Your task to perform on an android device: turn off translation in the chrome app Image 0: 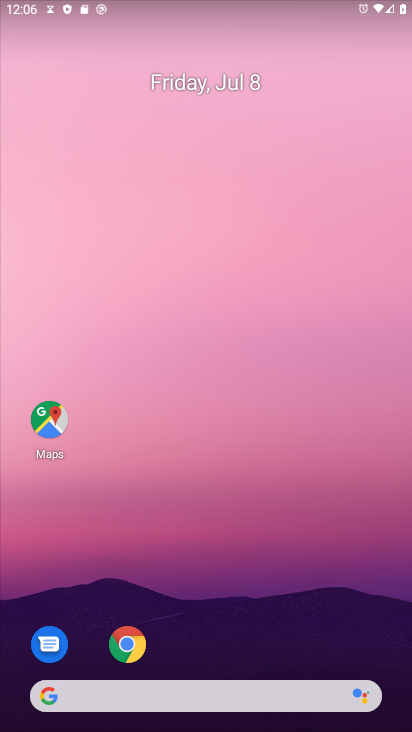
Step 0: drag from (200, 486) to (245, 177)
Your task to perform on an android device: turn off translation in the chrome app Image 1: 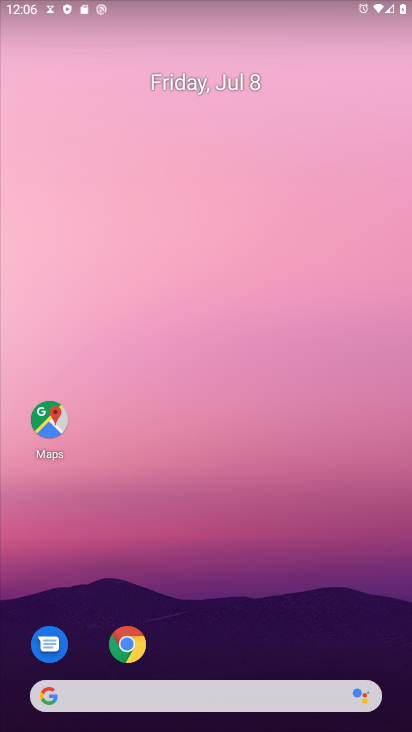
Step 1: click (127, 638)
Your task to perform on an android device: turn off translation in the chrome app Image 2: 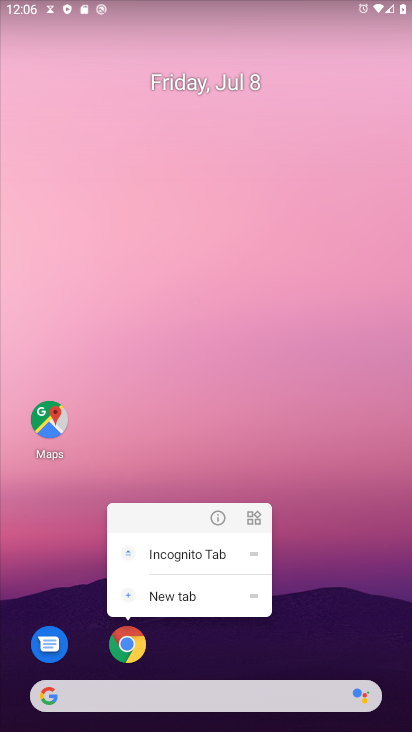
Step 2: click (130, 652)
Your task to perform on an android device: turn off translation in the chrome app Image 3: 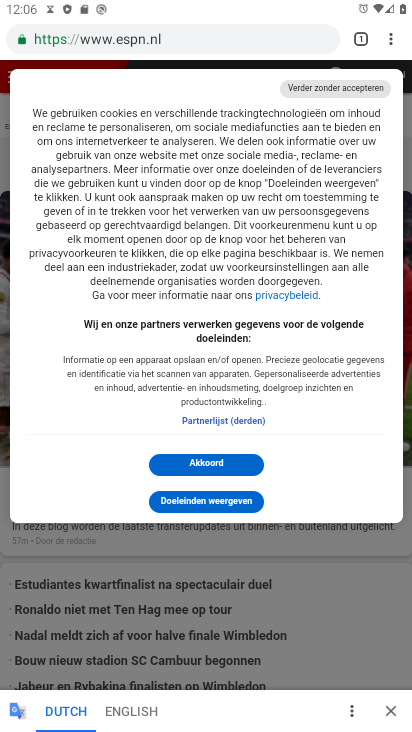
Step 3: click (390, 37)
Your task to perform on an android device: turn off translation in the chrome app Image 4: 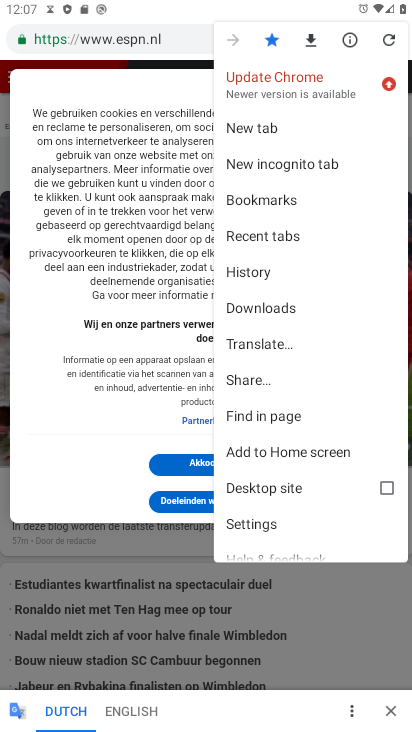
Step 4: click (252, 525)
Your task to perform on an android device: turn off translation in the chrome app Image 5: 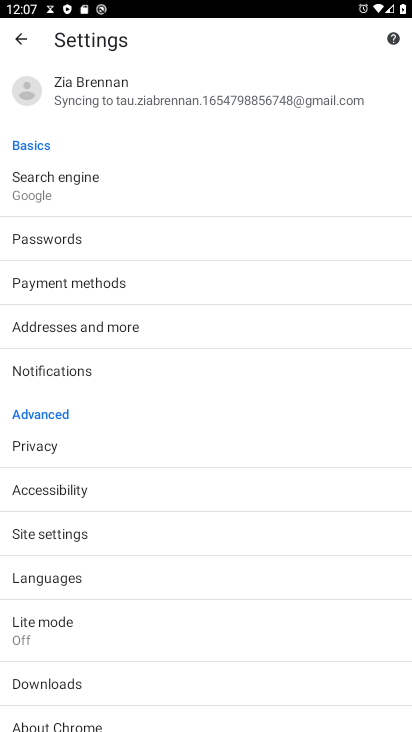
Step 5: click (77, 582)
Your task to perform on an android device: turn off translation in the chrome app Image 6: 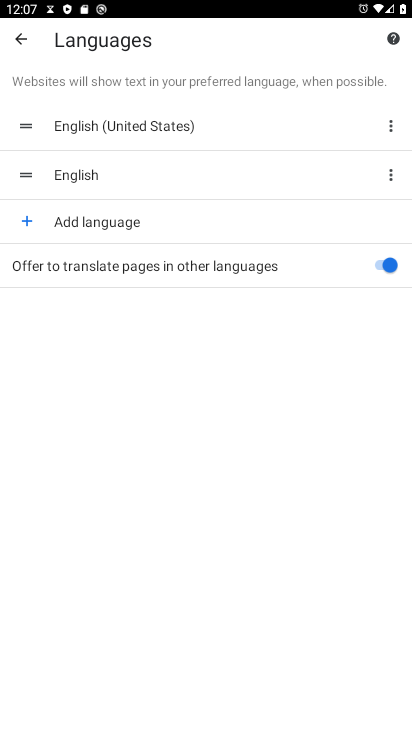
Step 6: click (356, 268)
Your task to perform on an android device: turn off translation in the chrome app Image 7: 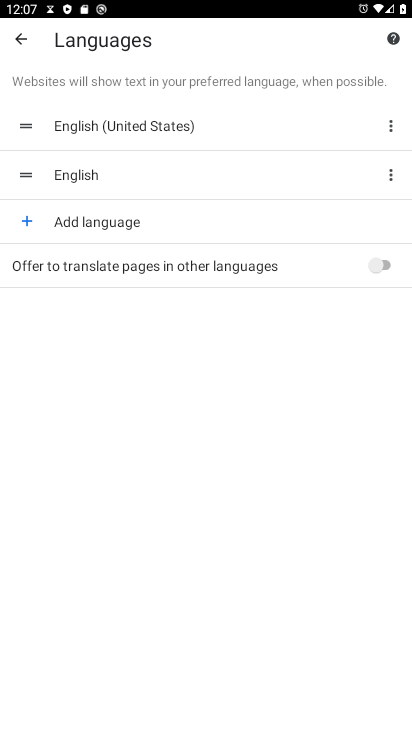
Step 7: task complete